Your task to perform on an android device: Open settings Image 0: 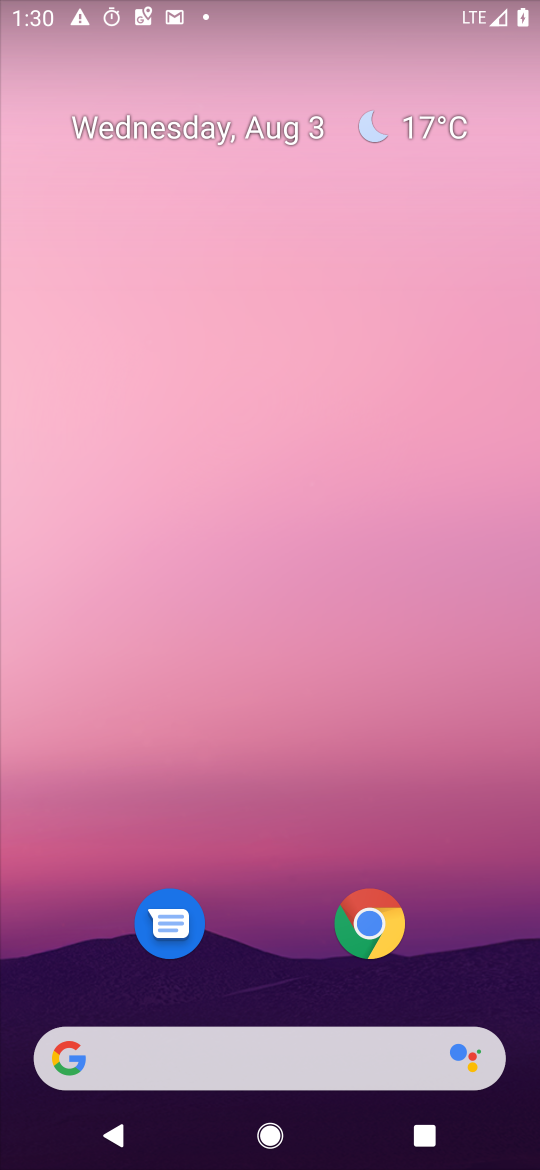
Step 0: drag from (289, 801) to (208, 78)
Your task to perform on an android device: Open settings Image 1: 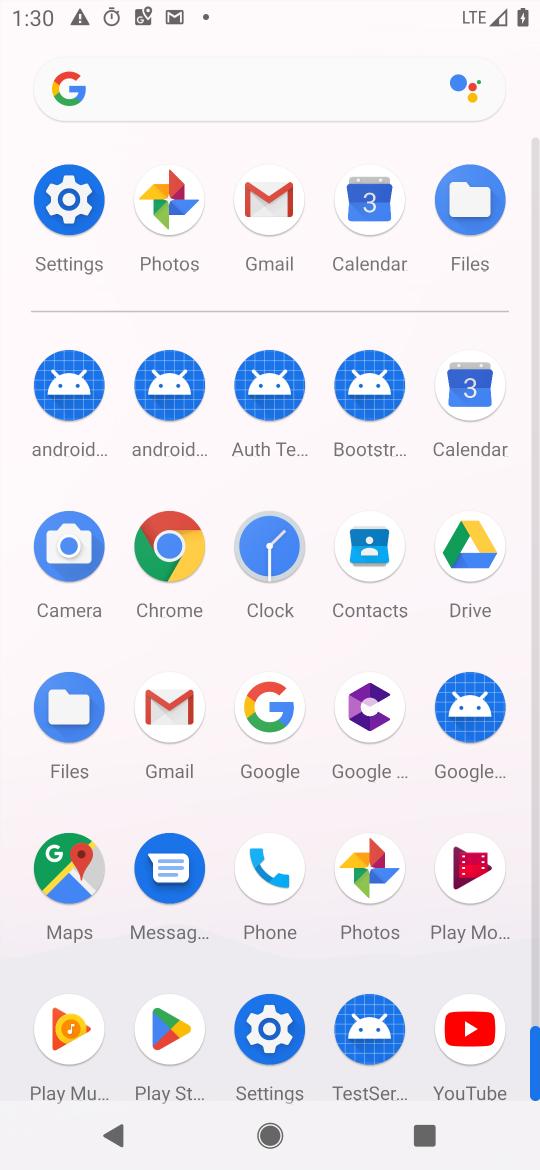
Step 1: click (262, 1036)
Your task to perform on an android device: Open settings Image 2: 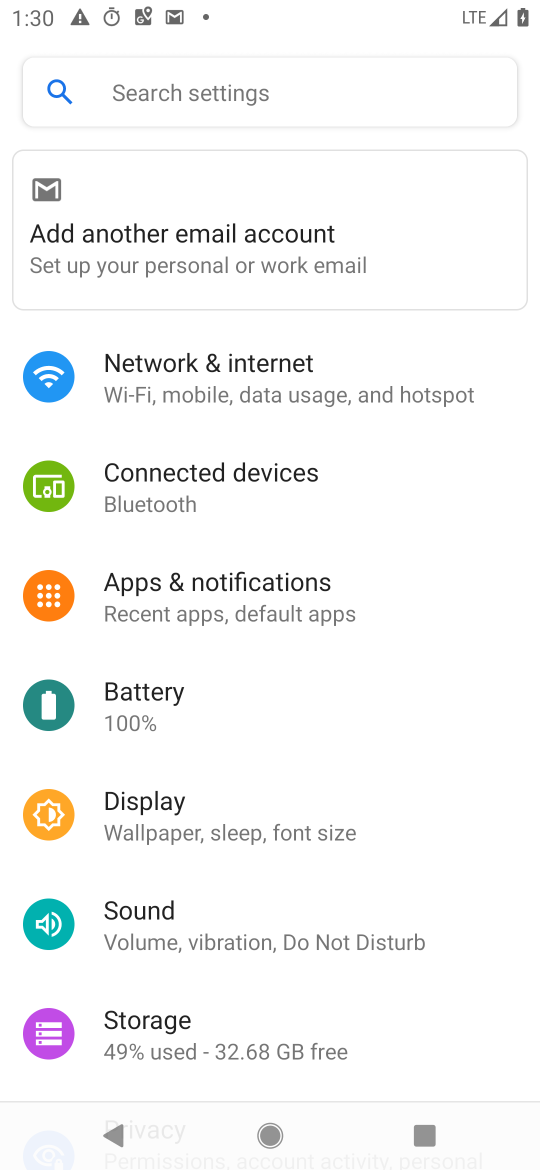
Step 2: task complete